Your task to perform on an android device: Set the phone to "Do not disturb". Image 0: 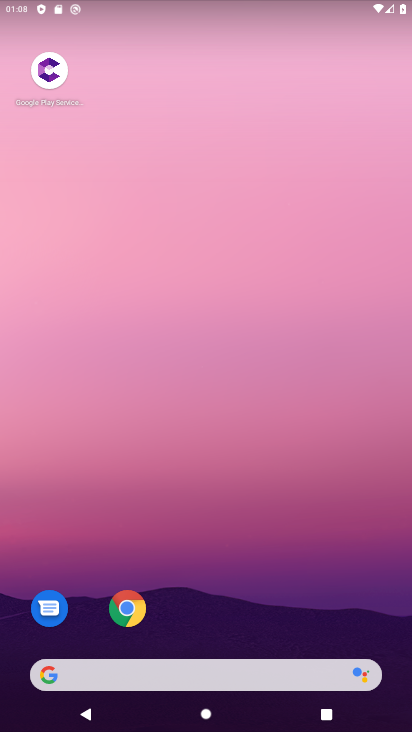
Step 0: drag from (221, 458) to (228, 175)
Your task to perform on an android device: Set the phone to "Do not disturb". Image 1: 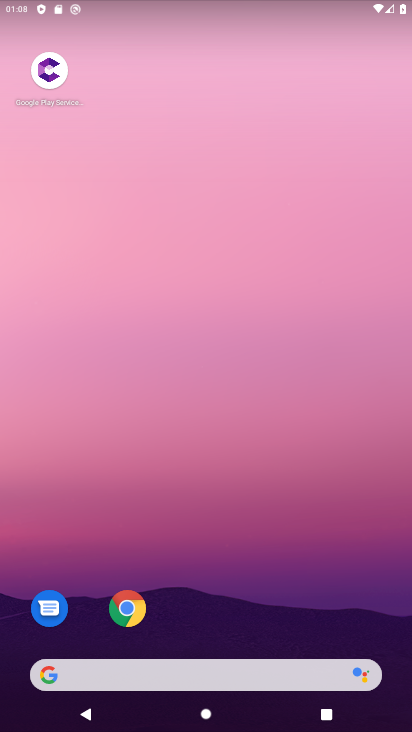
Step 1: drag from (194, 555) to (261, 273)
Your task to perform on an android device: Set the phone to "Do not disturb". Image 2: 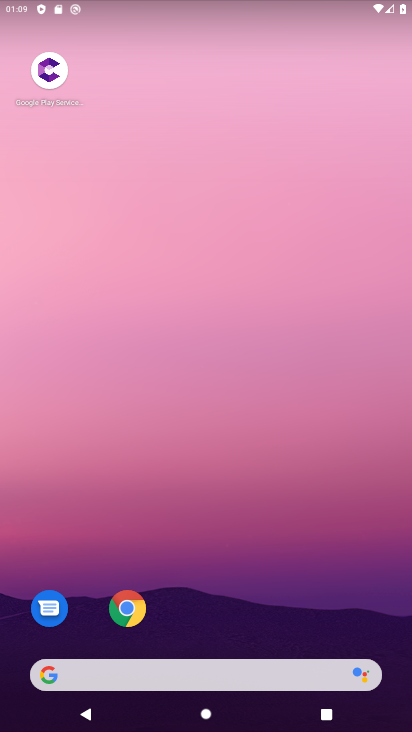
Step 2: drag from (198, 0) to (209, 643)
Your task to perform on an android device: Set the phone to "Do not disturb". Image 3: 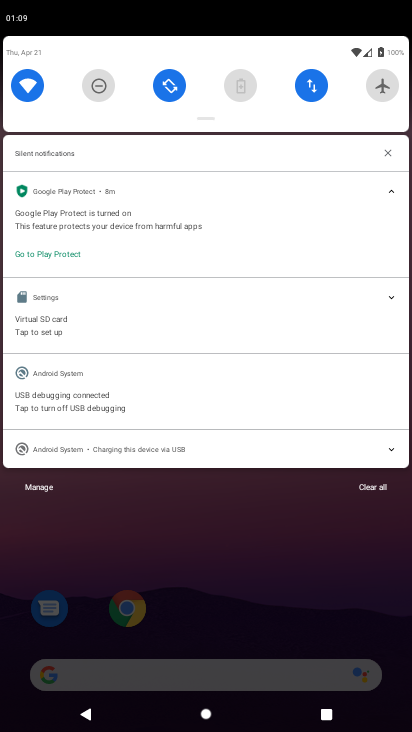
Step 3: click (89, 82)
Your task to perform on an android device: Set the phone to "Do not disturb". Image 4: 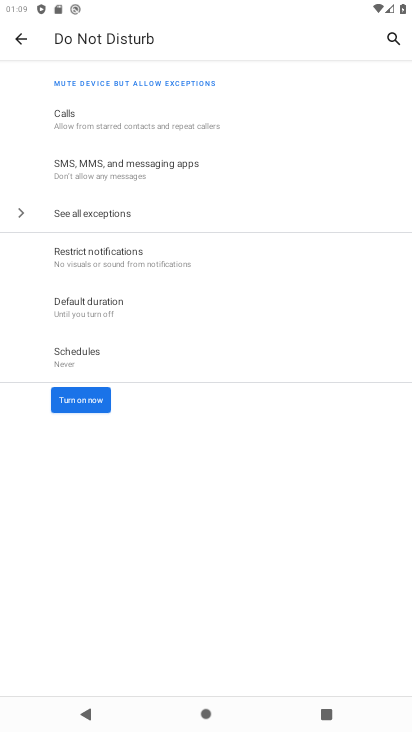
Step 4: click (84, 400)
Your task to perform on an android device: Set the phone to "Do not disturb". Image 5: 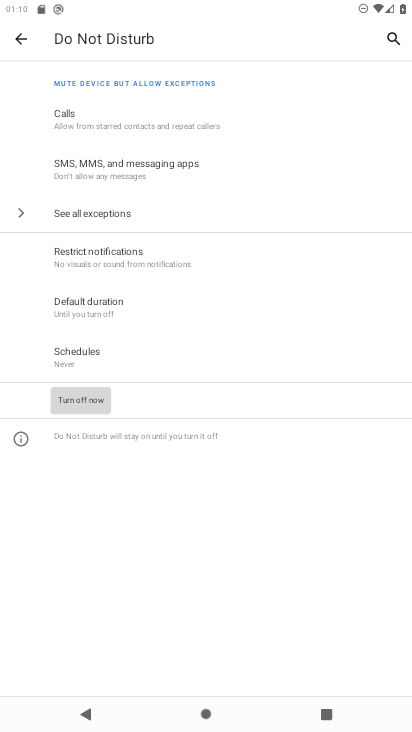
Step 5: task complete